Your task to perform on an android device: find snoozed emails in the gmail app Image 0: 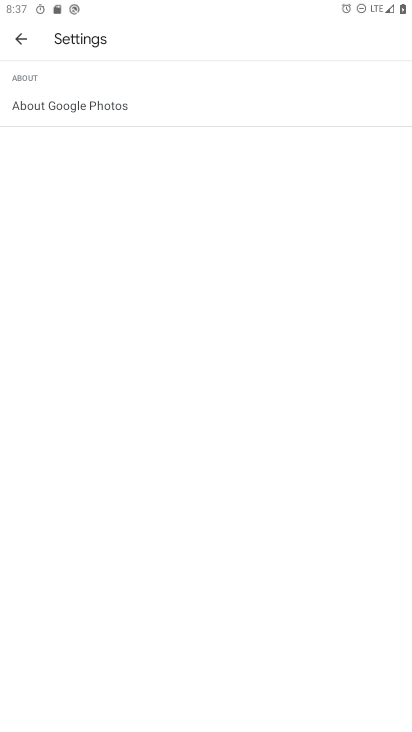
Step 0: drag from (326, 630) to (288, 3)
Your task to perform on an android device: find snoozed emails in the gmail app Image 1: 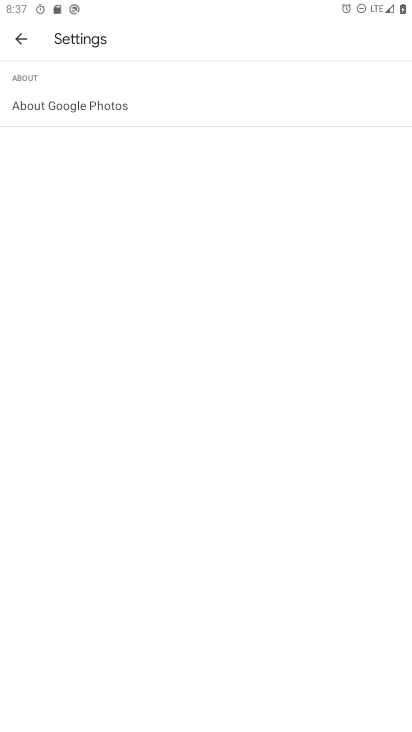
Step 1: press home button
Your task to perform on an android device: find snoozed emails in the gmail app Image 2: 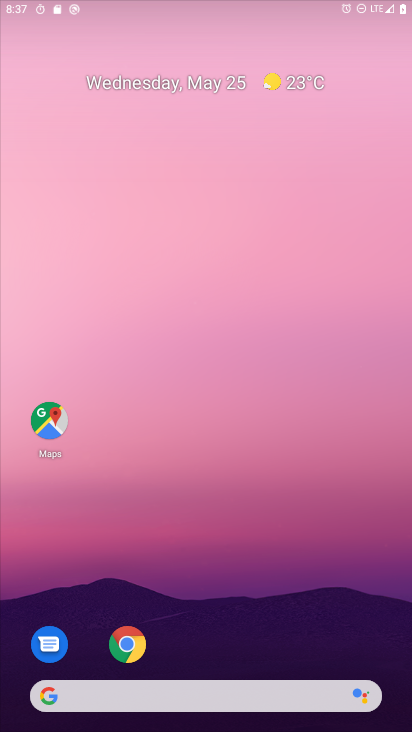
Step 2: drag from (334, 648) to (265, 94)
Your task to perform on an android device: find snoozed emails in the gmail app Image 3: 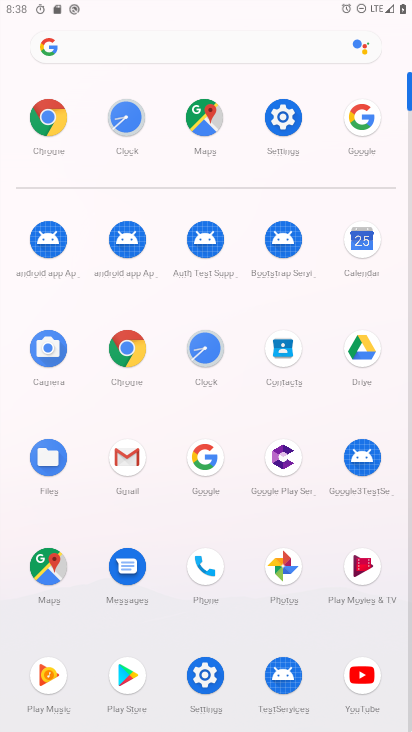
Step 3: click (126, 454)
Your task to perform on an android device: find snoozed emails in the gmail app Image 4: 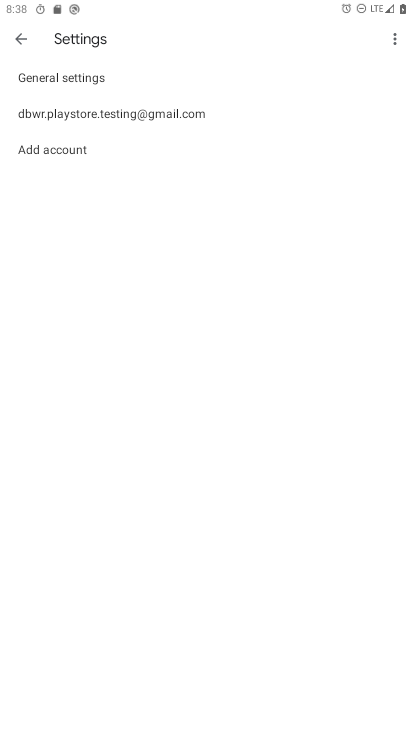
Step 4: press back button
Your task to perform on an android device: find snoozed emails in the gmail app Image 5: 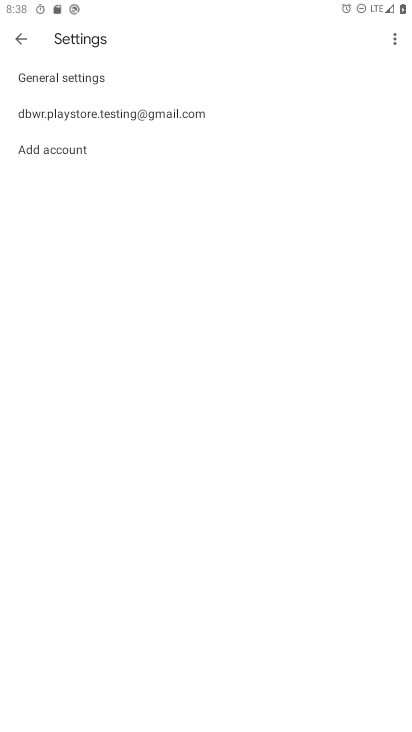
Step 5: press back button
Your task to perform on an android device: find snoozed emails in the gmail app Image 6: 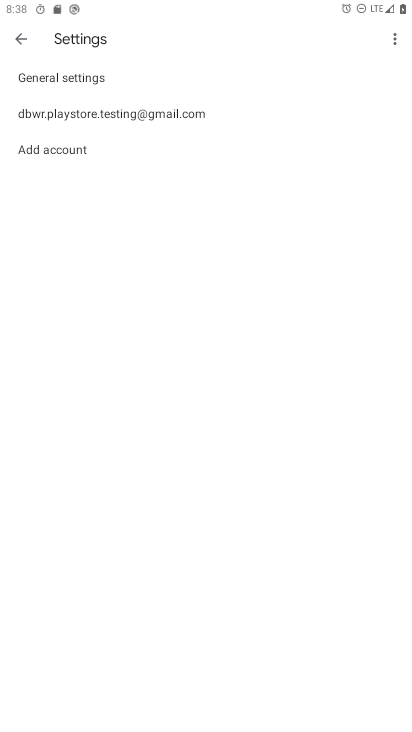
Step 6: press back button
Your task to perform on an android device: find snoozed emails in the gmail app Image 7: 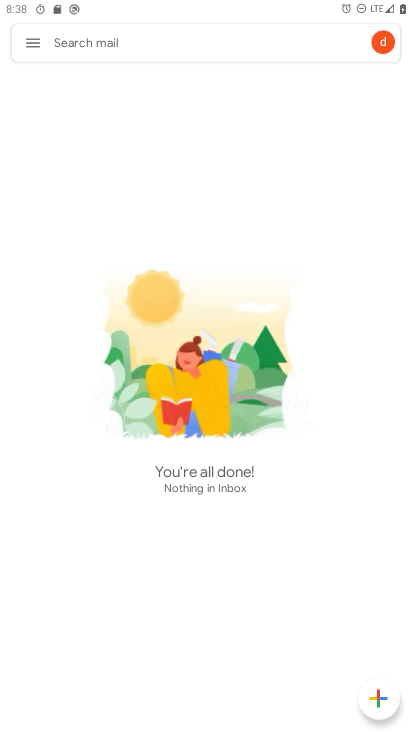
Step 7: click (38, 47)
Your task to perform on an android device: find snoozed emails in the gmail app Image 8: 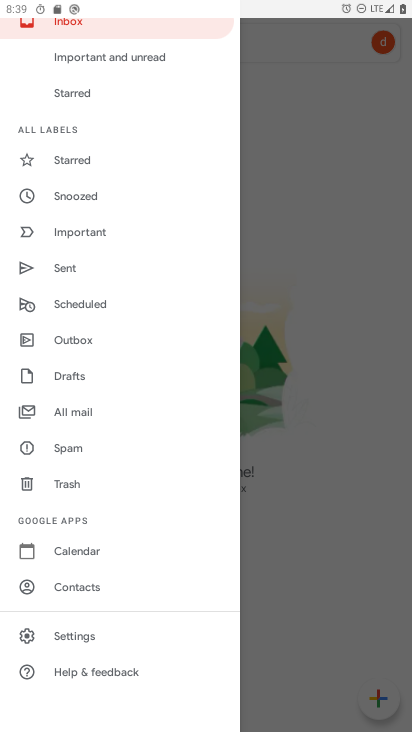
Step 8: click (93, 191)
Your task to perform on an android device: find snoozed emails in the gmail app Image 9: 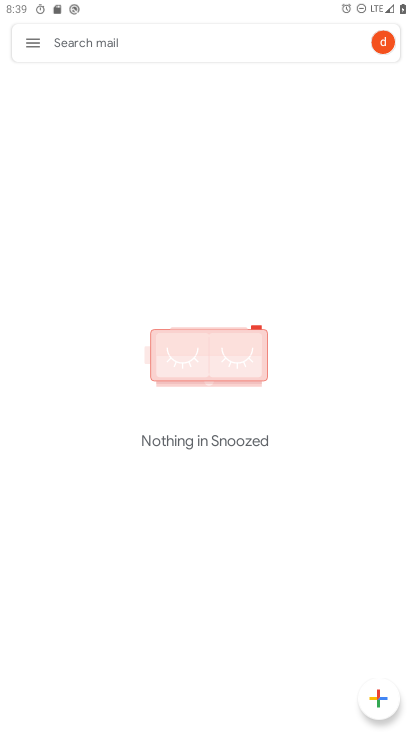
Step 9: task complete